Your task to perform on an android device: turn off wifi Image 0: 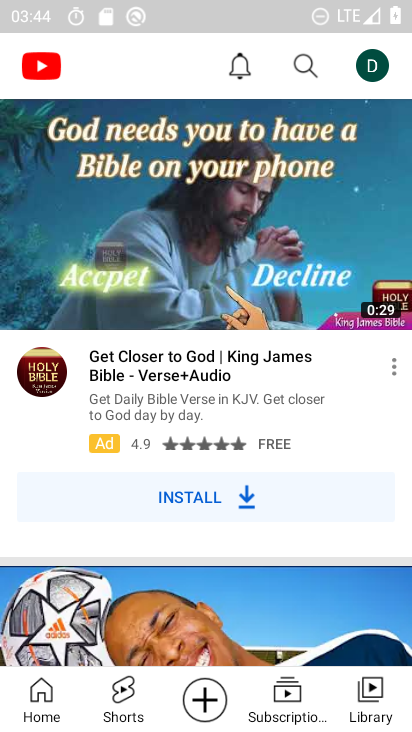
Step 0: press home button
Your task to perform on an android device: turn off wifi Image 1: 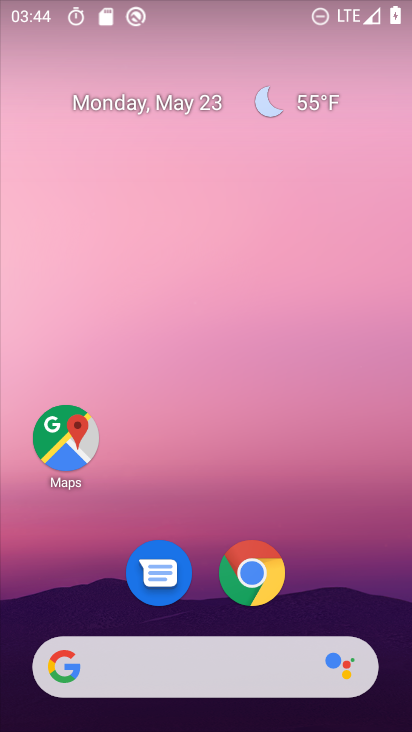
Step 1: drag from (317, 577) to (268, 36)
Your task to perform on an android device: turn off wifi Image 2: 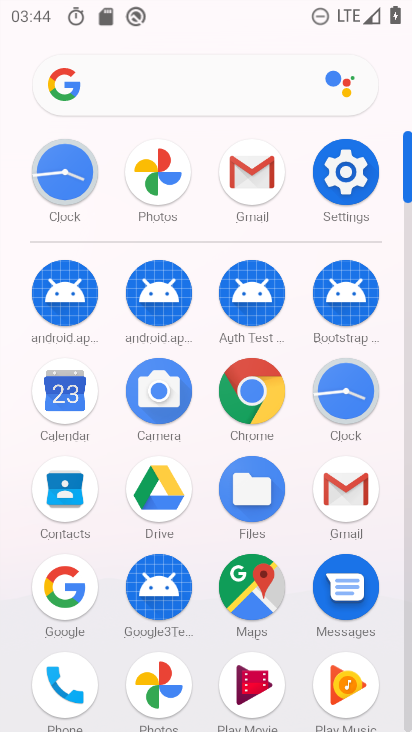
Step 2: click (348, 177)
Your task to perform on an android device: turn off wifi Image 3: 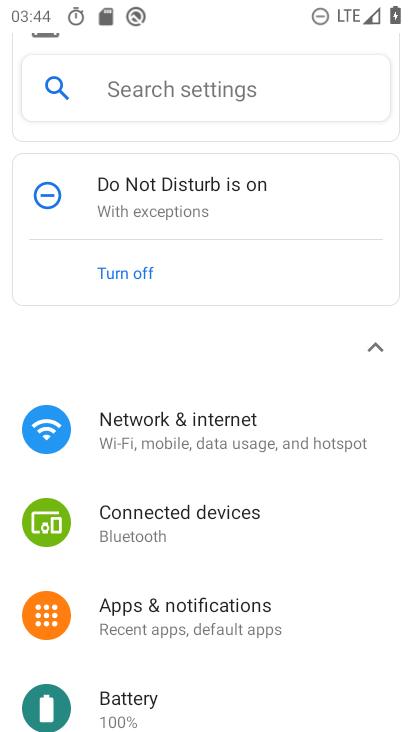
Step 3: click (220, 430)
Your task to perform on an android device: turn off wifi Image 4: 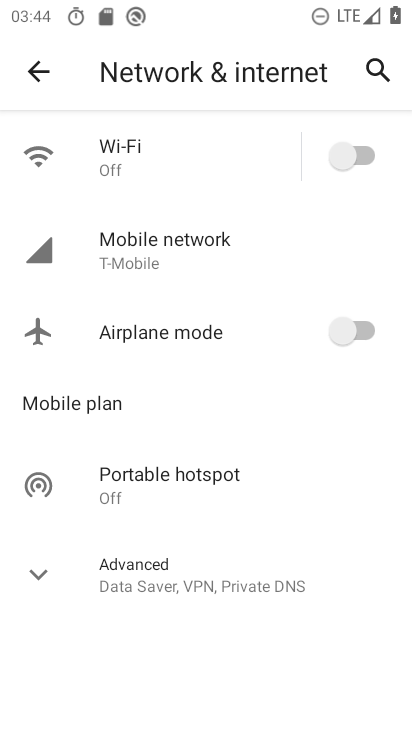
Step 4: task complete